Your task to perform on an android device: Open Yahoo.com Image 0: 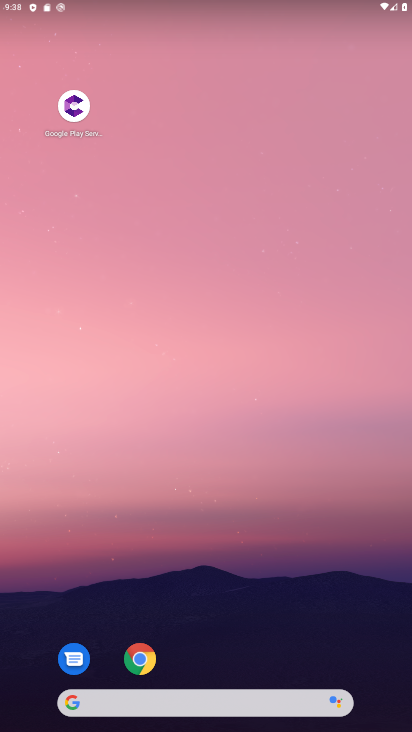
Step 0: click (139, 663)
Your task to perform on an android device: Open Yahoo.com Image 1: 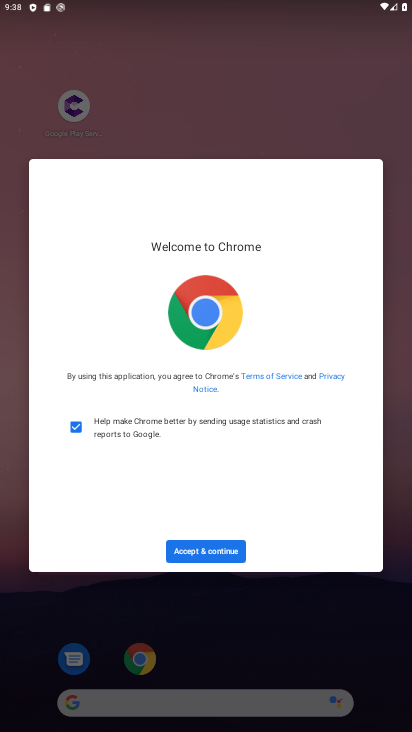
Step 1: click (240, 549)
Your task to perform on an android device: Open Yahoo.com Image 2: 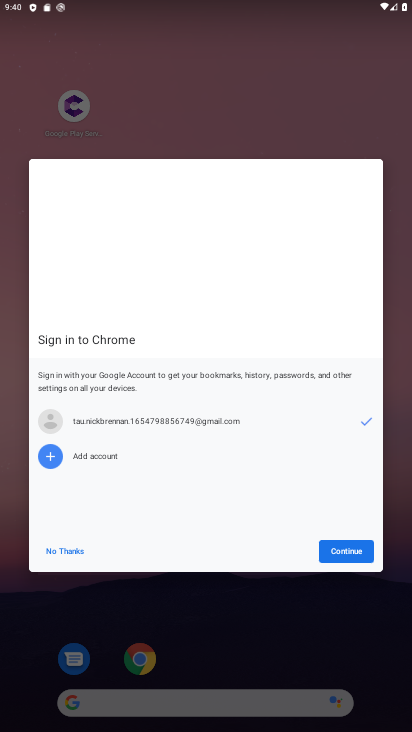
Step 2: click (364, 554)
Your task to perform on an android device: Open Yahoo.com Image 3: 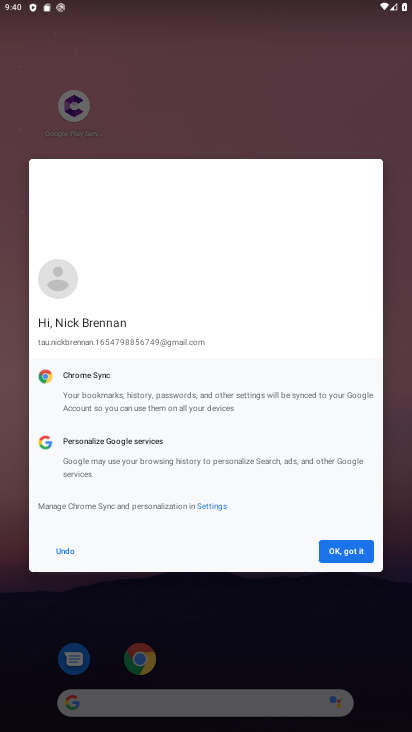
Step 3: click (356, 562)
Your task to perform on an android device: Open Yahoo.com Image 4: 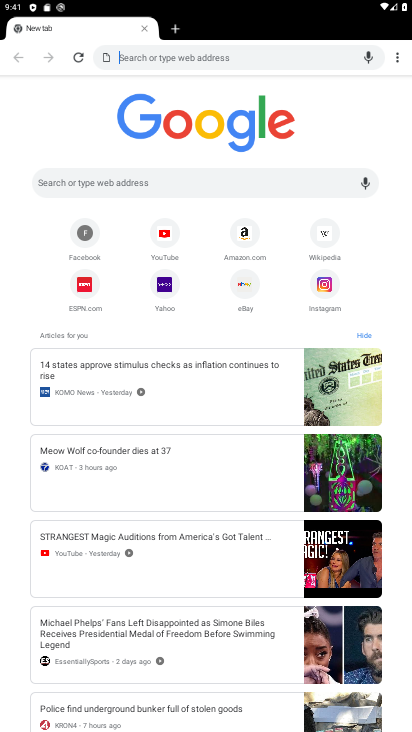
Step 4: click (181, 191)
Your task to perform on an android device: Open Yahoo.com Image 5: 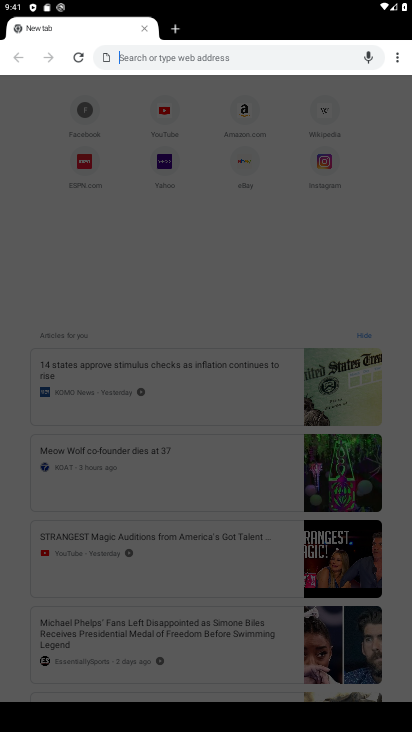
Step 5: type "Yahoo.com"
Your task to perform on an android device: Open Yahoo.com Image 6: 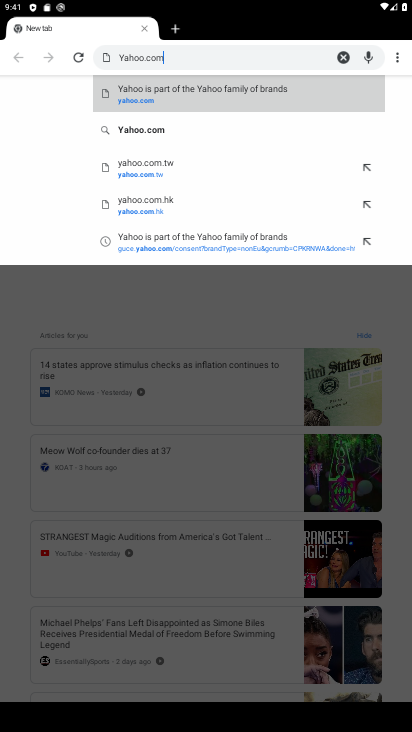
Step 6: click (157, 128)
Your task to perform on an android device: Open Yahoo.com Image 7: 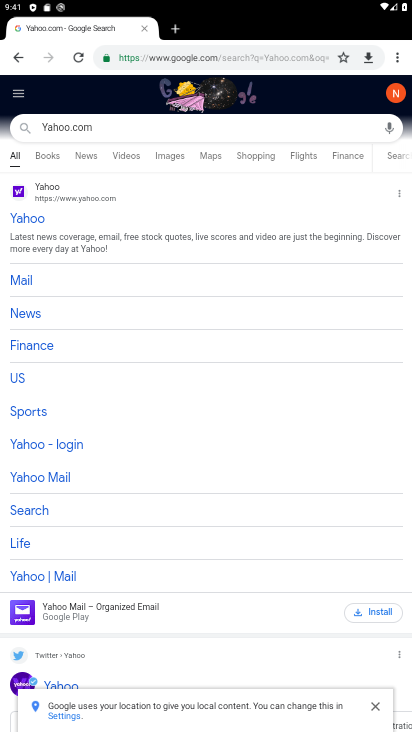
Step 7: task complete